Your task to perform on an android device: uninstall "Google Play services" Image 0: 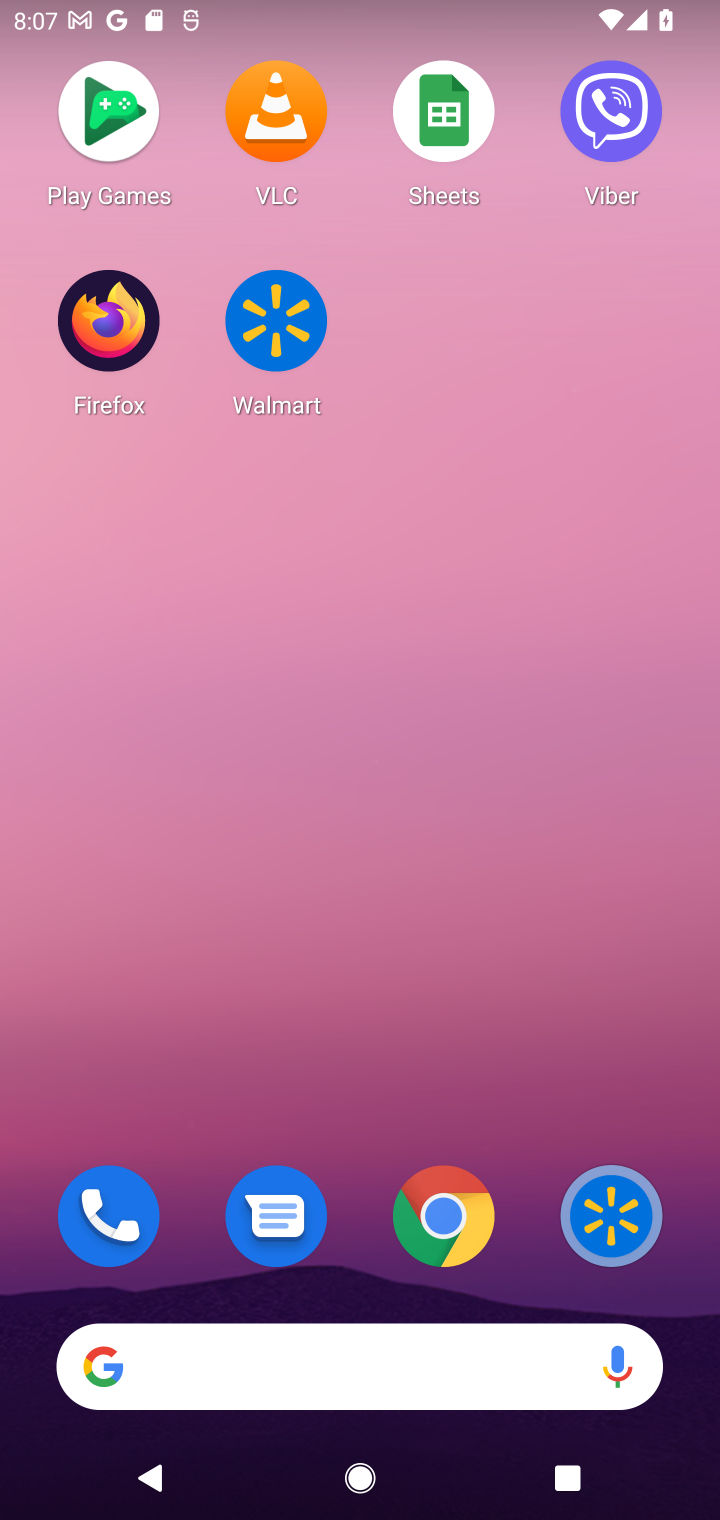
Step 0: drag from (419, 945) to (512, 137)
Your task to perform on an android device: uninstall "Google Play services" Image 1: 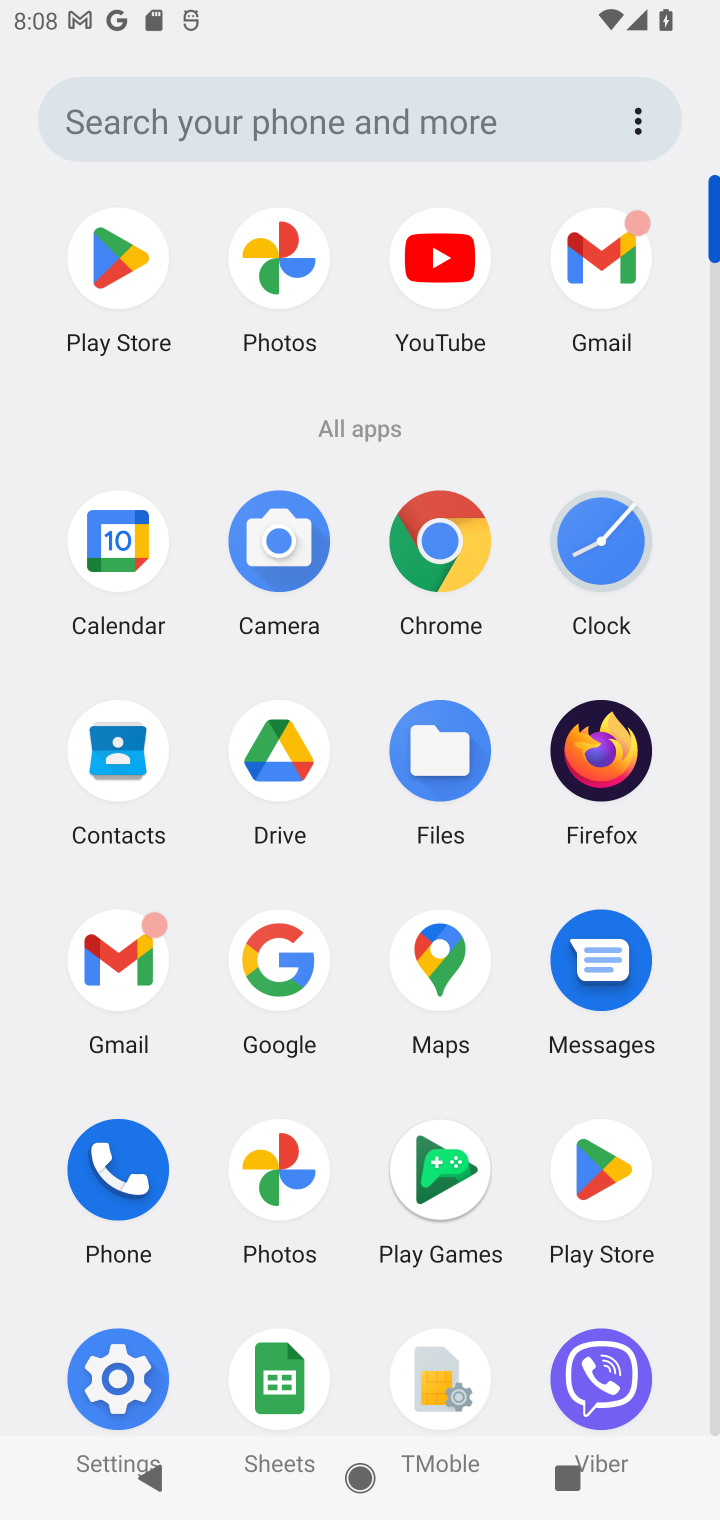
Step 1: click (114, 241)
Your task to perform on an android device: uninstall "Google Play services" Image 2: 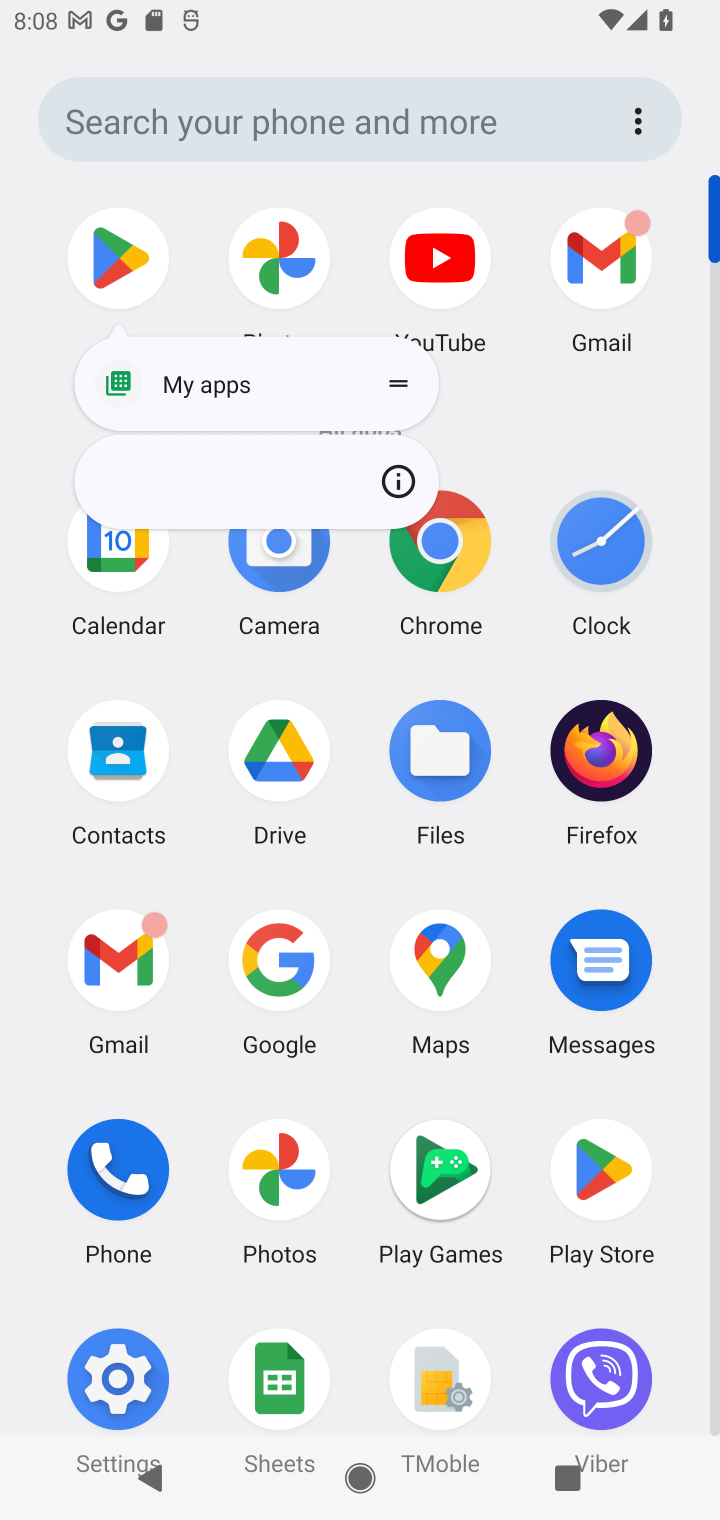
Step 2: click (119, 257)
Your task to perform on an android device: uninstall "Google Play services" Image 3: 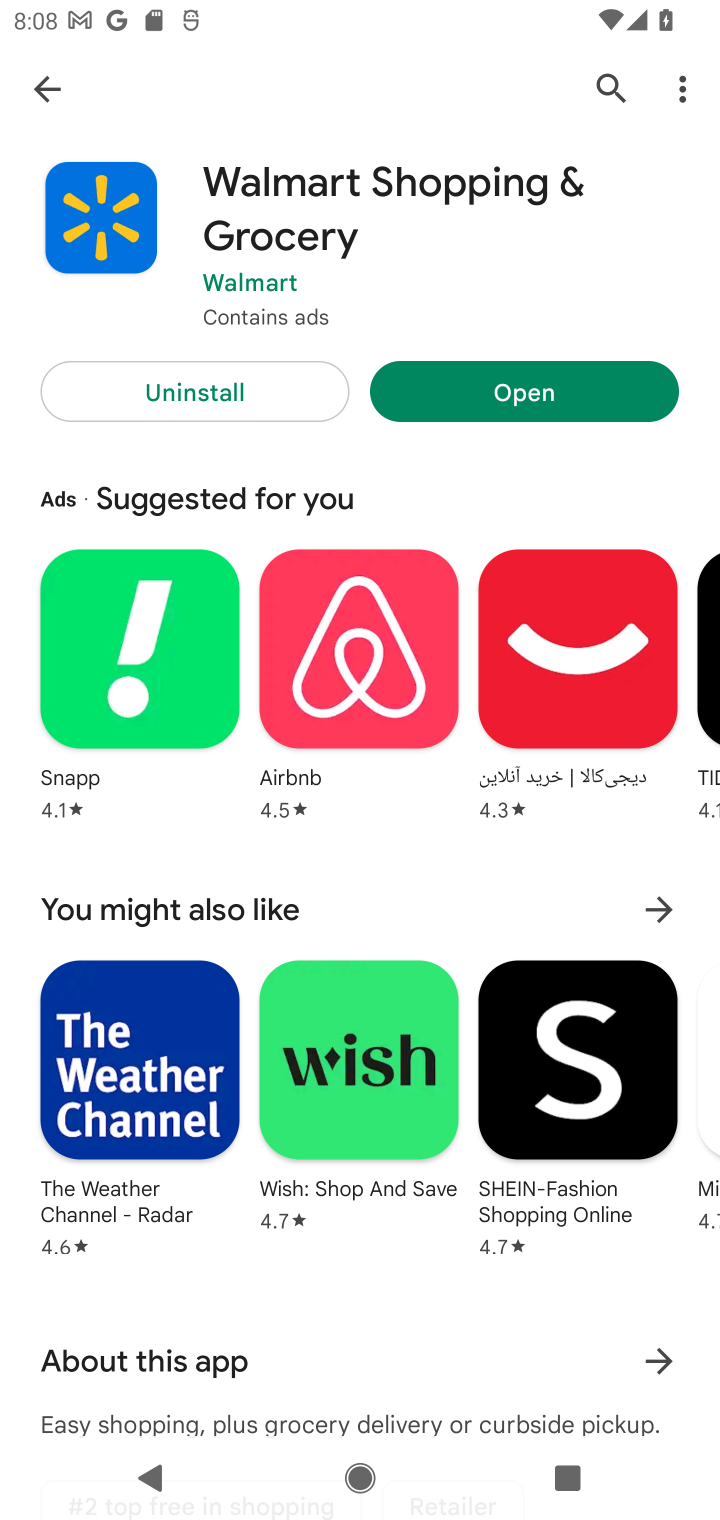
Step 3: click (624, 73)
Your task to perform on an android device: uninstall "Google Play services" Image 4: 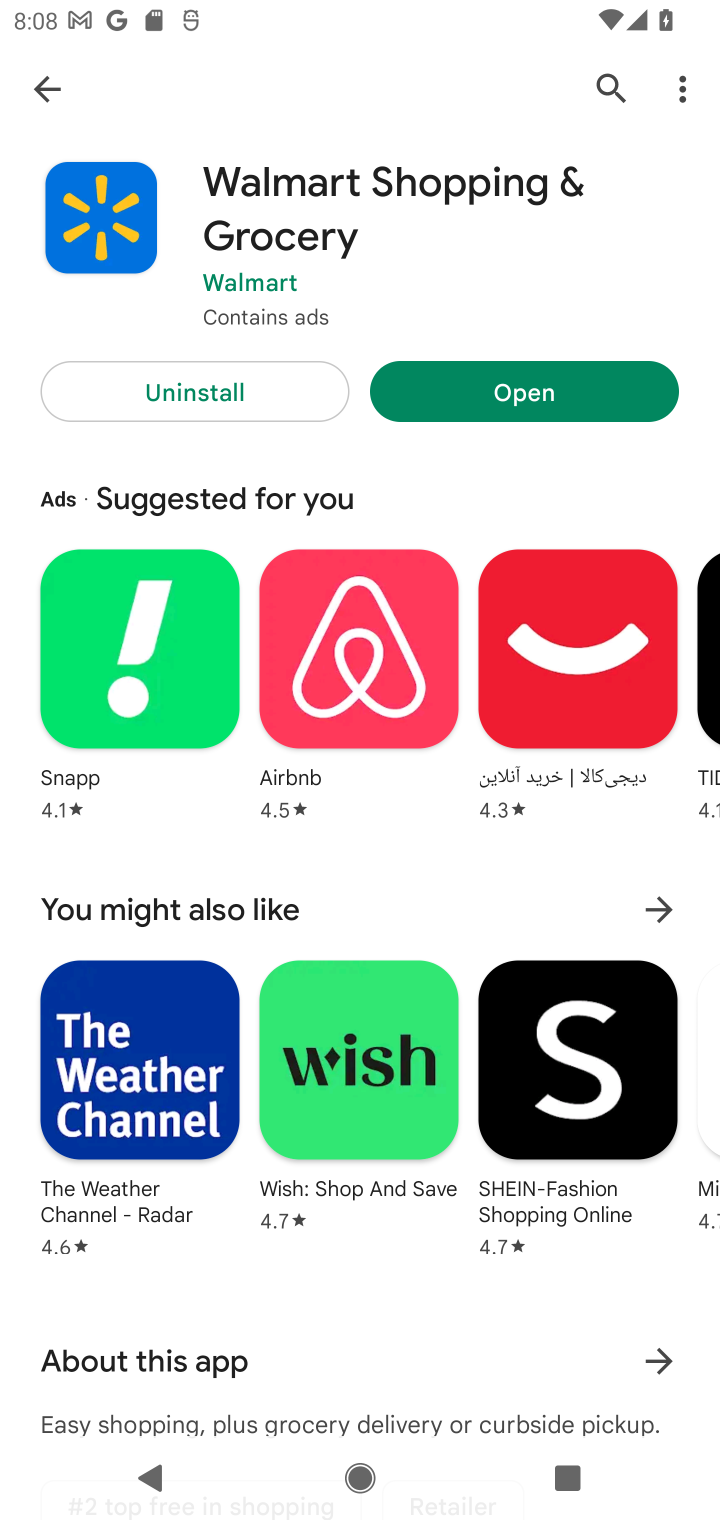
Step 4: click (596, 77)
Your task to perform on an android device: uninstall "Google Play services" Image 5: 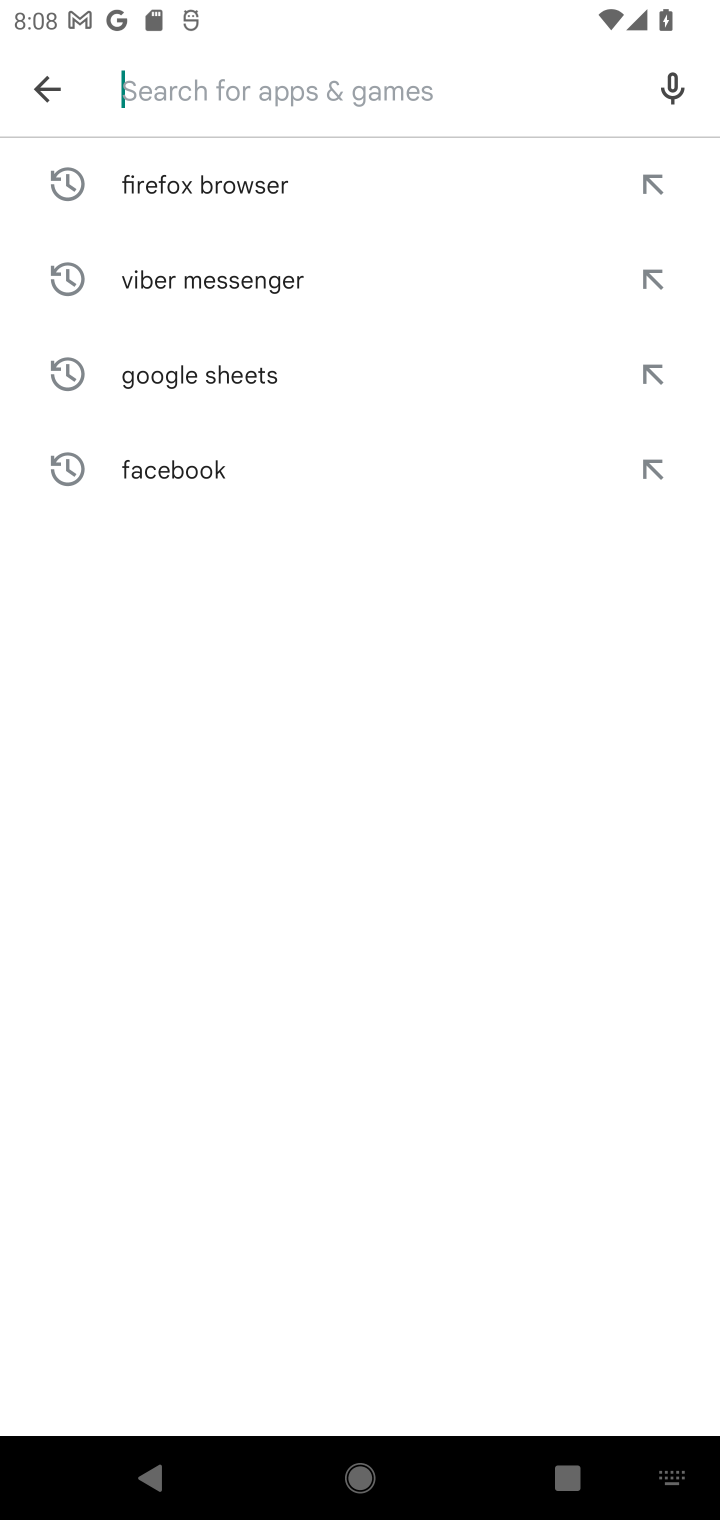
Step 5: click (329, 81)
Your task to perform on an android device: uninstall "Google Play services" Image 6: 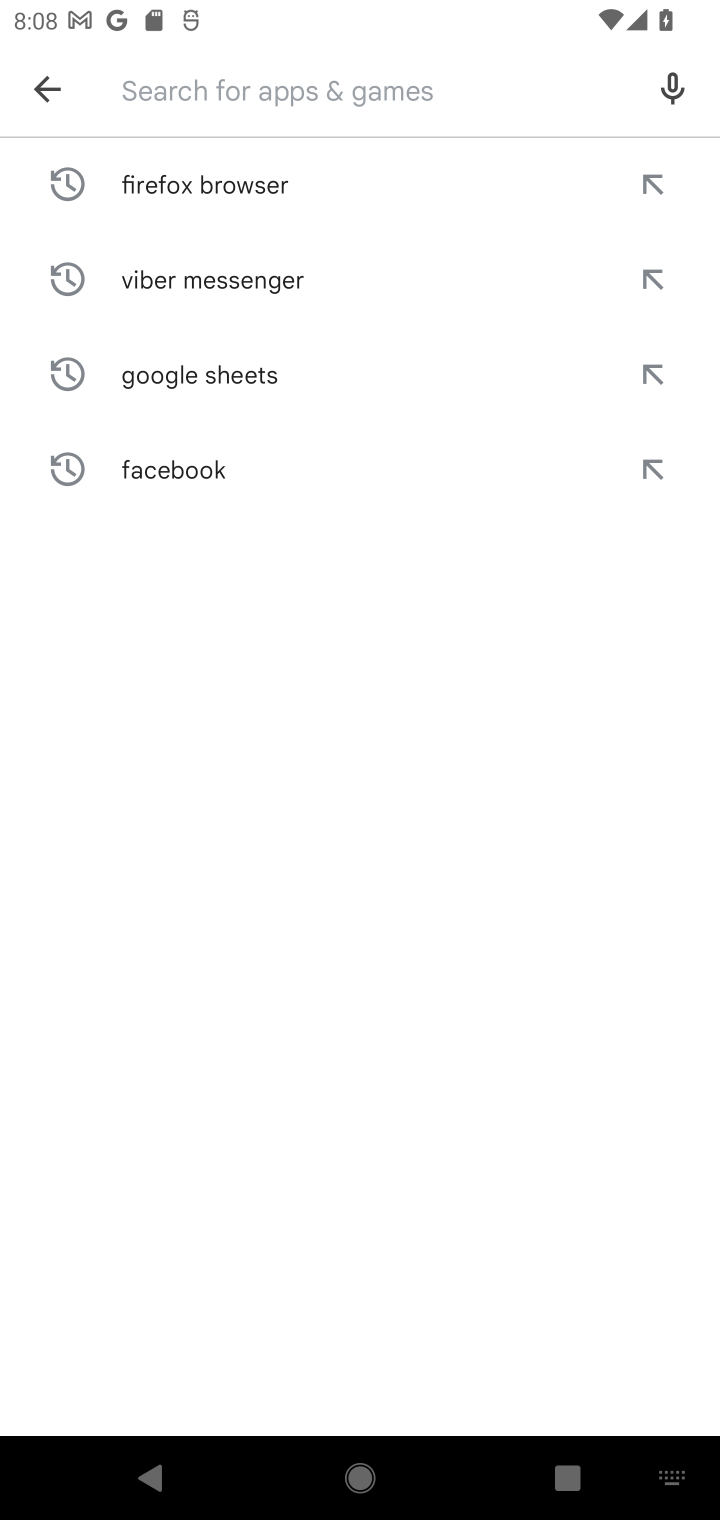
Step 6: type "Google Play services"
Your task to perform on an android device: uninstall "Google Play services" Image 7: 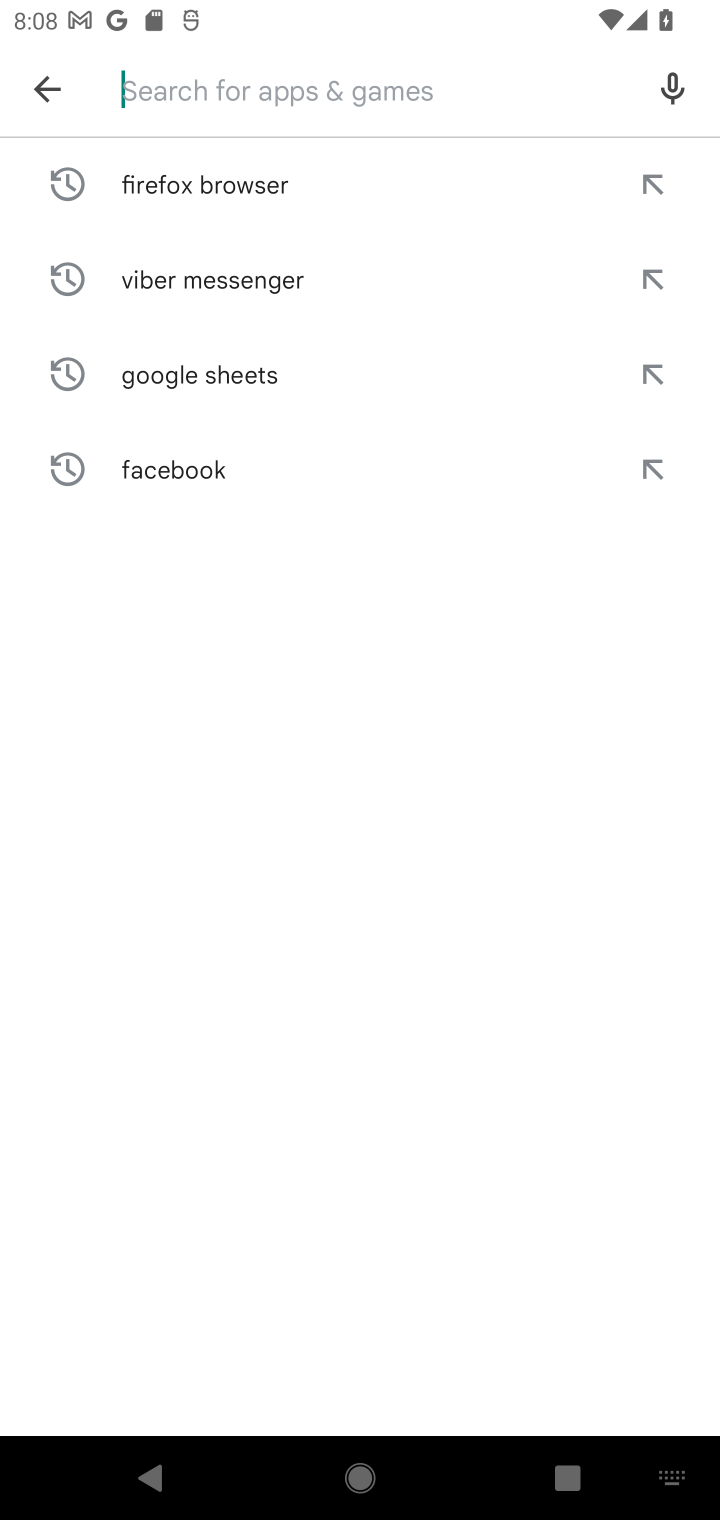
Step 7: click (296, 838)
Your task to perform on an android device: uninstall "Google Play services" Image 8: 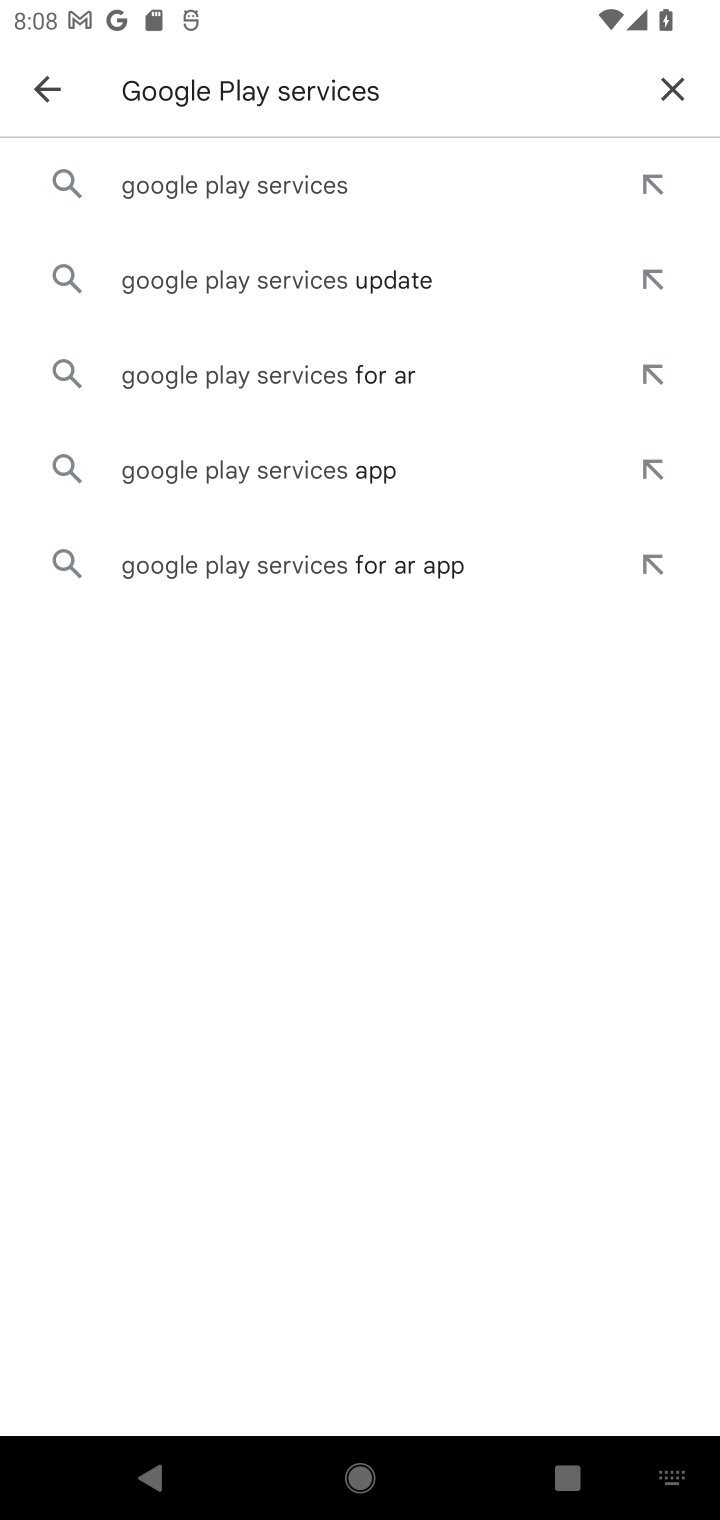
Step 8: click (365, 186)
Your task to perform on an android device: uninstall "Google Play services" Image 9: 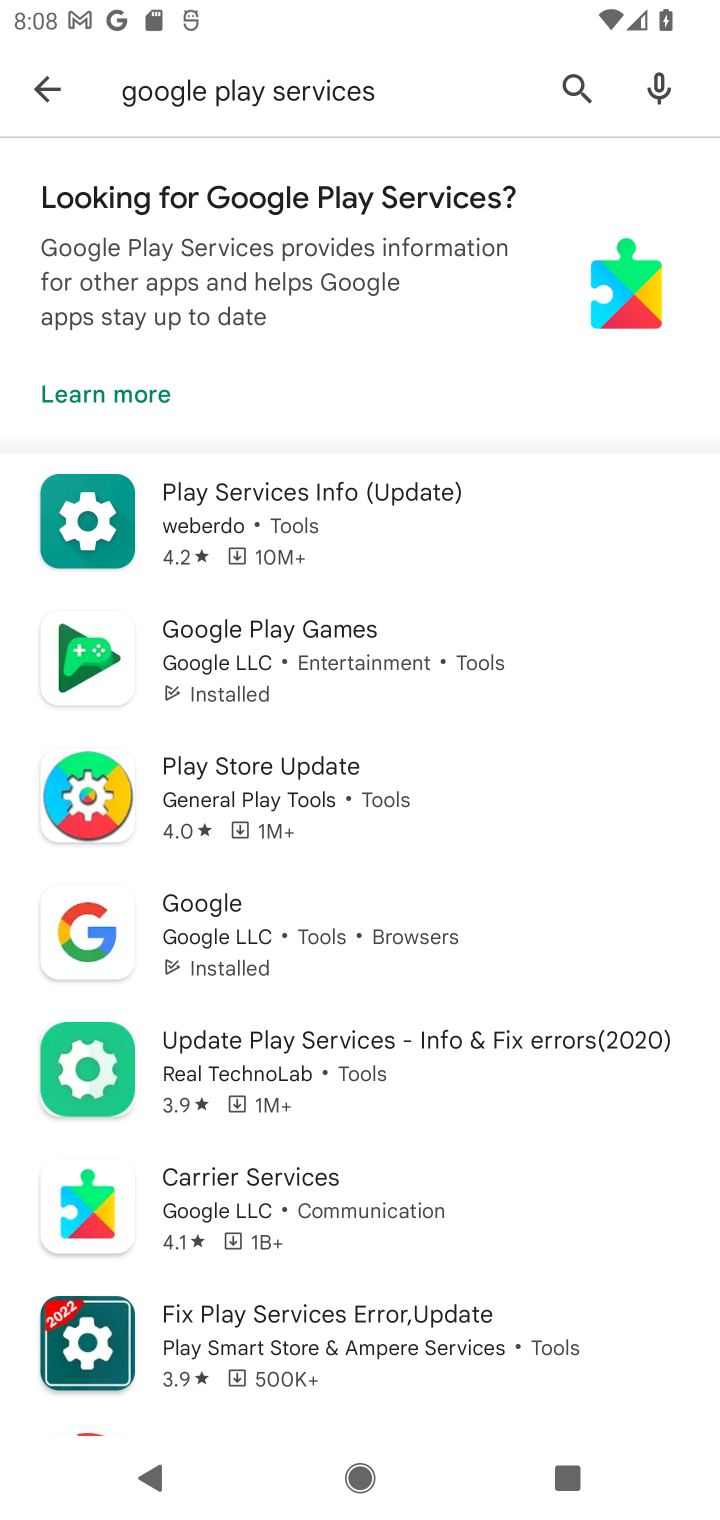
Step 9: task complete